Your task to perform on an android device: See recent photos Image 0: 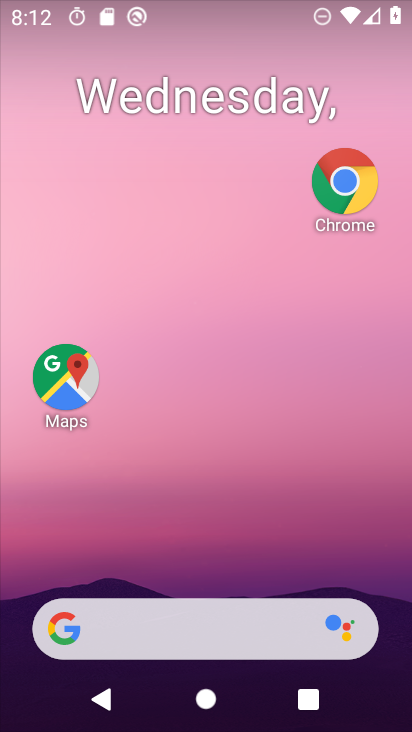
Step 0: drag from (246, 677) to (241, 190)
Your task to perform on an android device: See recent photos Image 1: 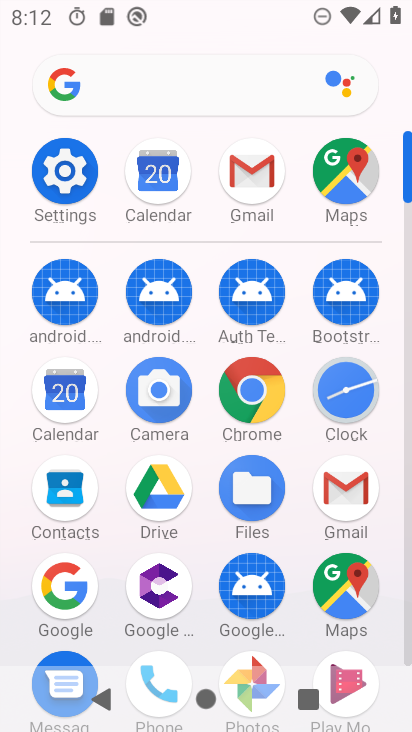
Step 1: click (241, 652)
Your task to perform on an android device: See recent photos Image 2: 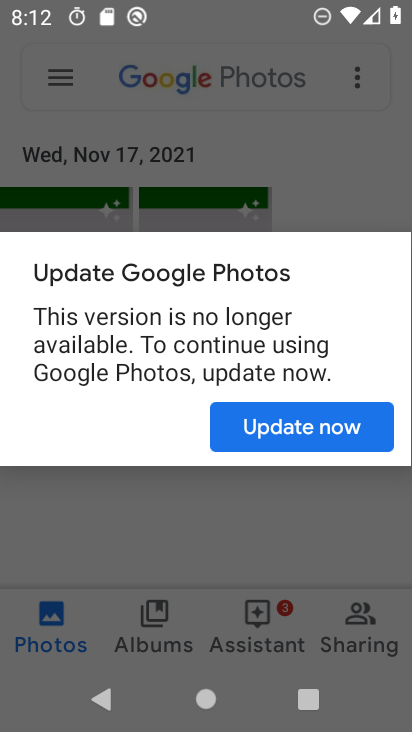
Step 2: click (336, 431)
Your task to perform on an android device: See recent photos Image 3: 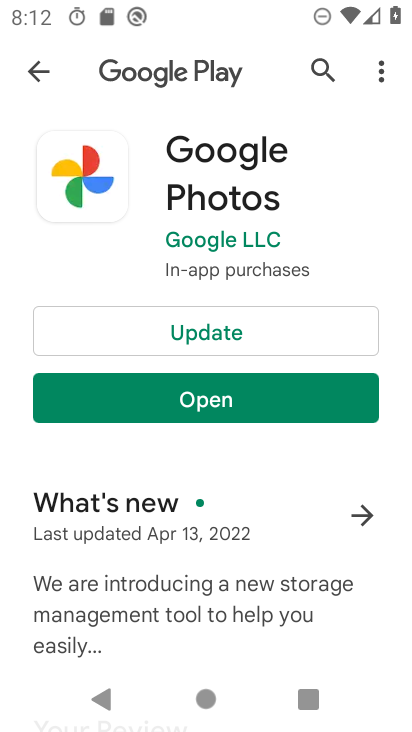
Step 3: click (241, 406)
Your task to perform on an android device: See recent photos Image 4: 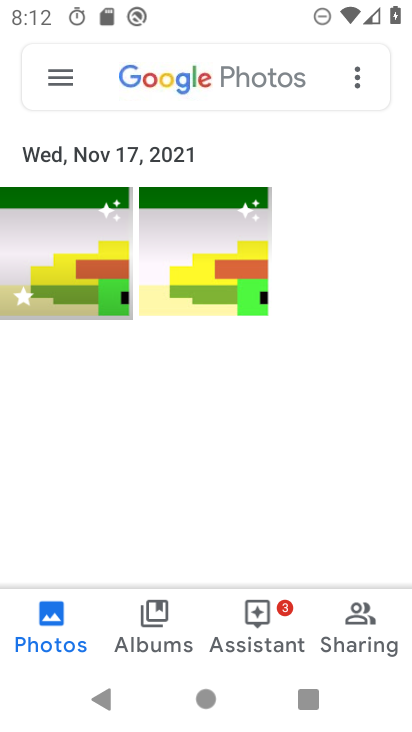
Step 4: task complete